Your task to perform on an android device: turn on location history Image 0: 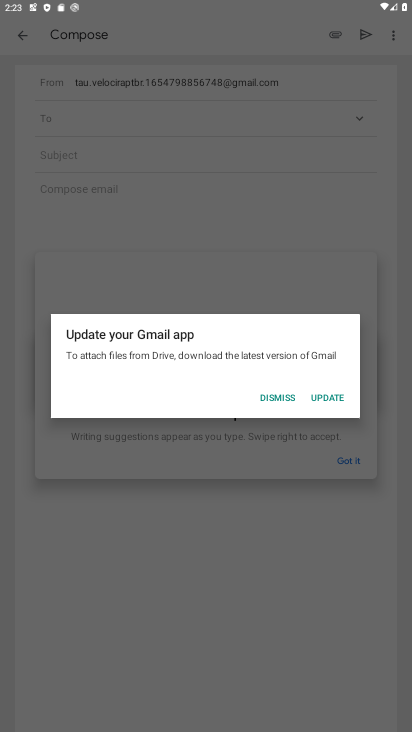
Step 0: press home button
Your task to perform on an android device: turn on location history Image 1: 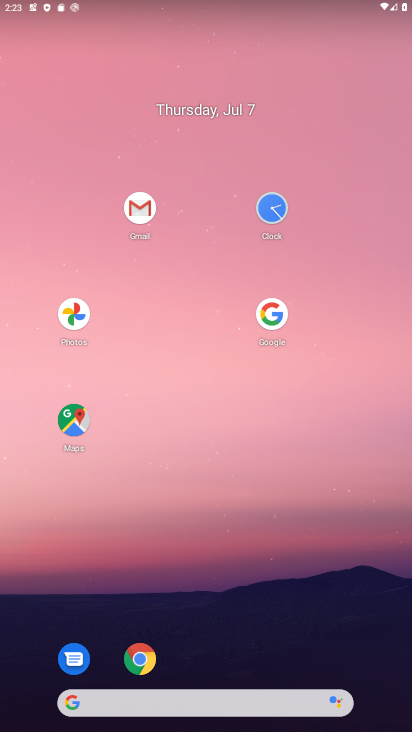
Step 1: drag from (290, 646) to (299, 201)
Your task to perform on an android device: turn on location history Image 2: 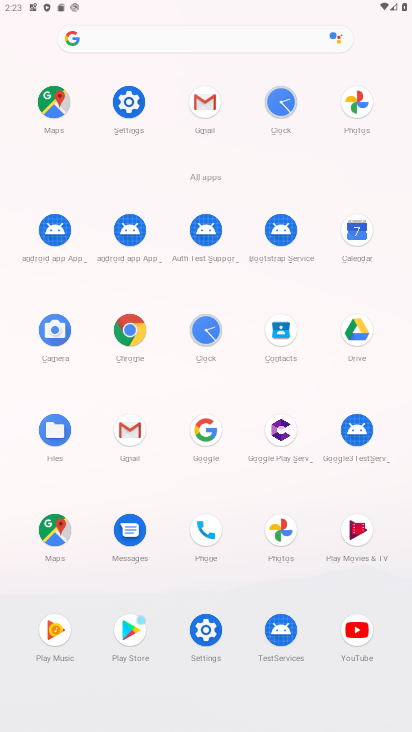
Step 2: drag from (208, 630) to (136, 356)
Your task to perform on an android device: turn on location history Image 3: 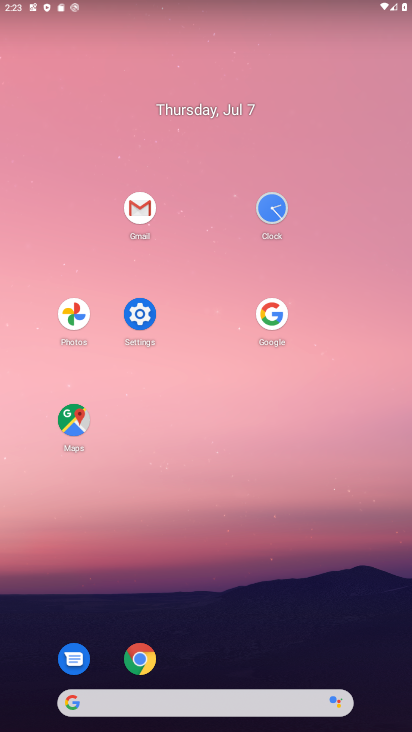
Step 3: click (144, 322)
Your task to perform on an android device: turn on location history Image 4: 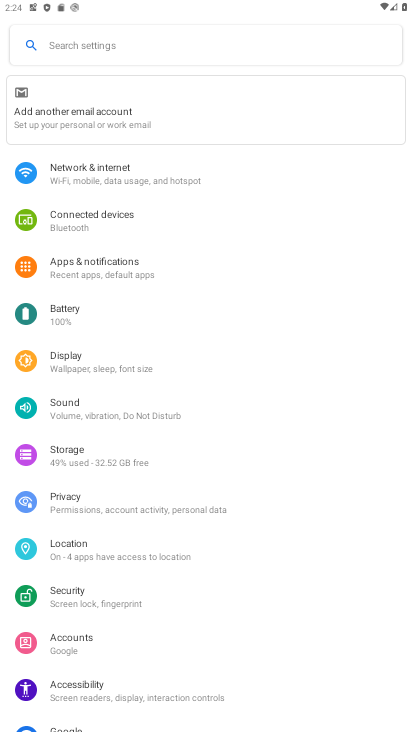
Step 4: click (160, 560)
Your task to perform on an android device: turn on location history Image 5: 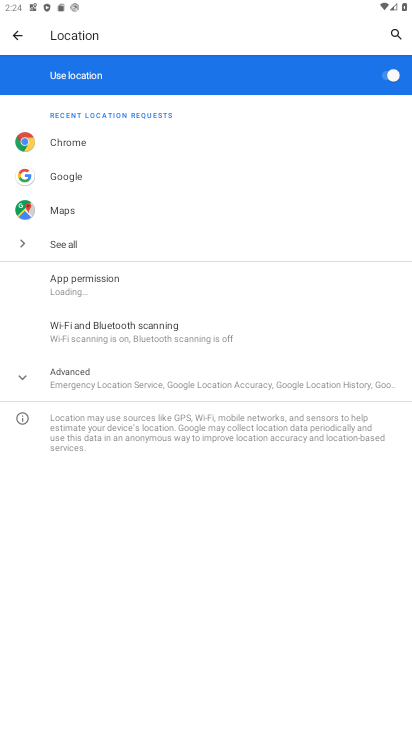
Step 5: click (177, 370)
Your task to perform on an android device: turn on location history Image 6: 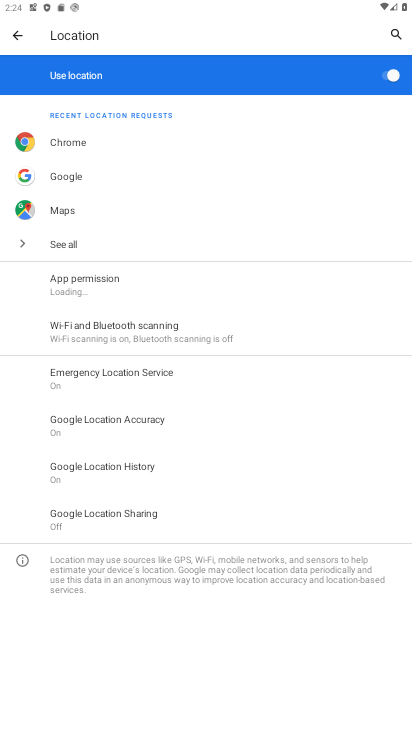
Step 6: click (153, 464)
Your task to perform on an android device: turn on location history Image 7: 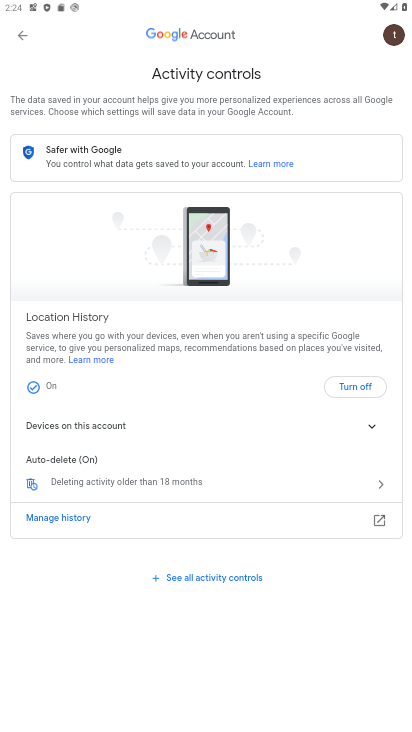
Step 7: task complete